Your task to perform on an android device: Go to Reddit.com Image 0: 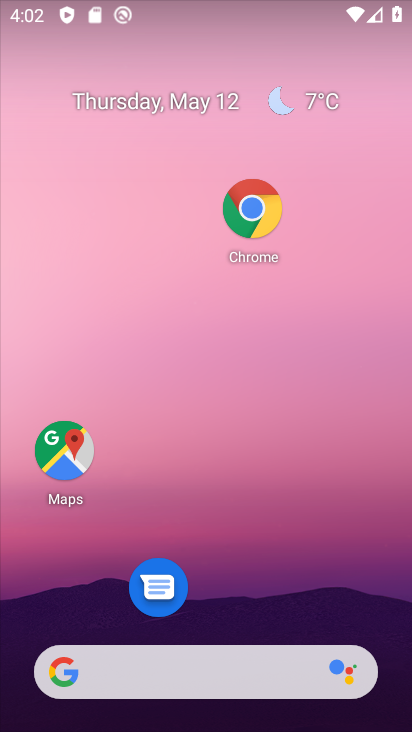
Step 0: click (248, 245)
Your task to perform on an android device: Go to Reddit.com Image 1: 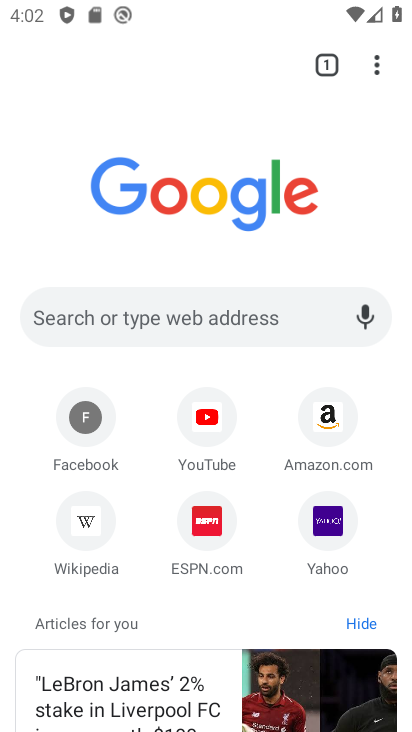
Step 1: click (178, 317)
Your task to perform on an android device: Go to Reddit.com Image 2: 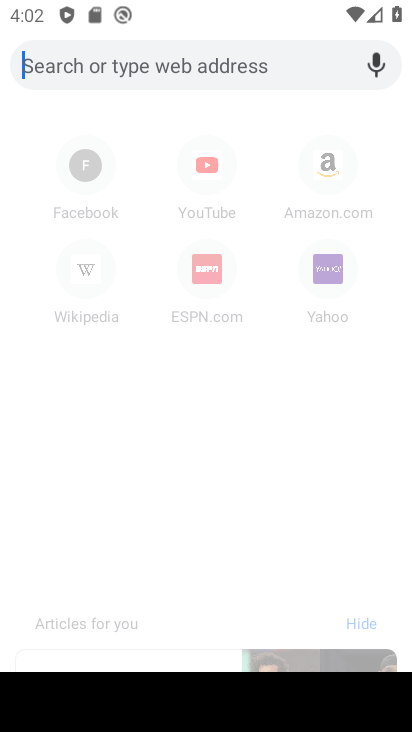
Step 2: click (197, 65)
Your task to perform on an android device: Go to Reddit.com Image 3: 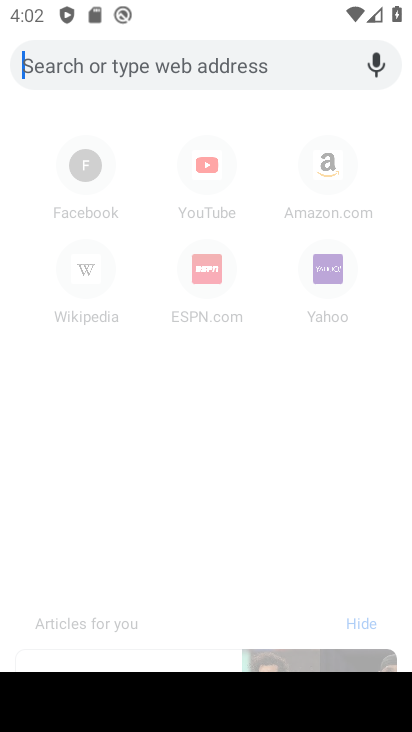
Step 3: type "www.reddit.com"
Your task to perform on an android device: Go to Reddit.com Image 4: 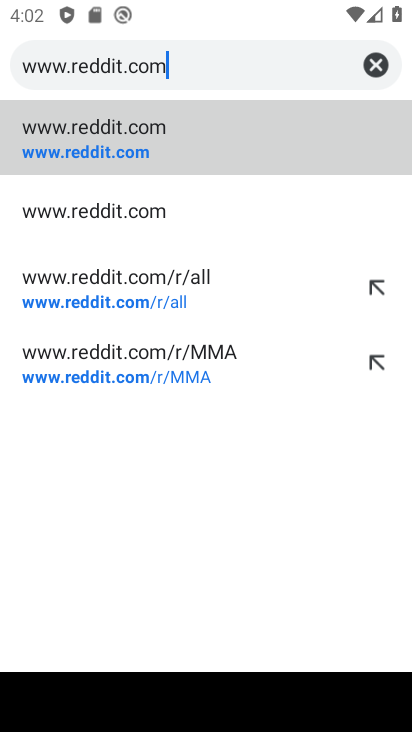
Step 4: click (87, 146)
Your task to perform on an android device: Go to Reddit.com Image 5: 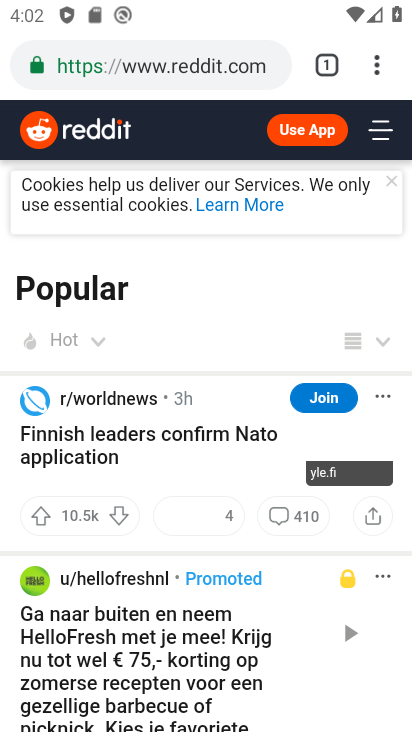
Step 5: task complete